Your task to perform on an android device: Empty the shopping cart on walmart.com. Search for beats solo 3 on walmart.com, select the first entry, and add it to the cart. Image 0: 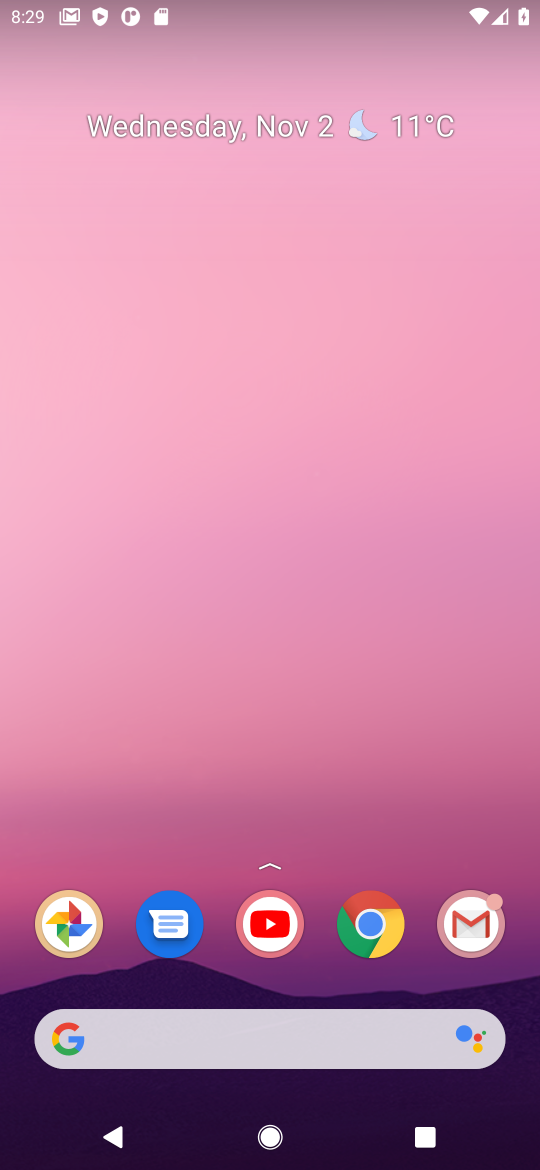
Step 0: click (393, 924)
Your task to perform on an android device: Empty the shopping cart on walmart.com. Search for beats solo 3 on walmart.com, select the first entry, and add it to the cart. Image 1: 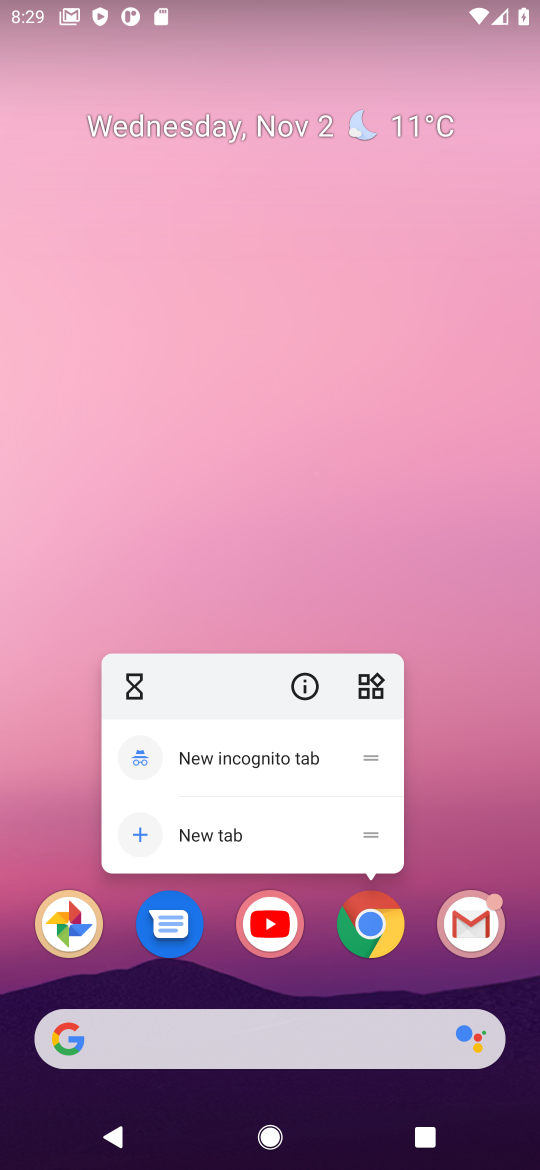
Step 1: click (394, 917)
Your task to perform on an android device: Empty the shopping cart on walmart.com. Search for beats solo 3 on walmart.com, select the first entry, and add it to the cart. Image 2: 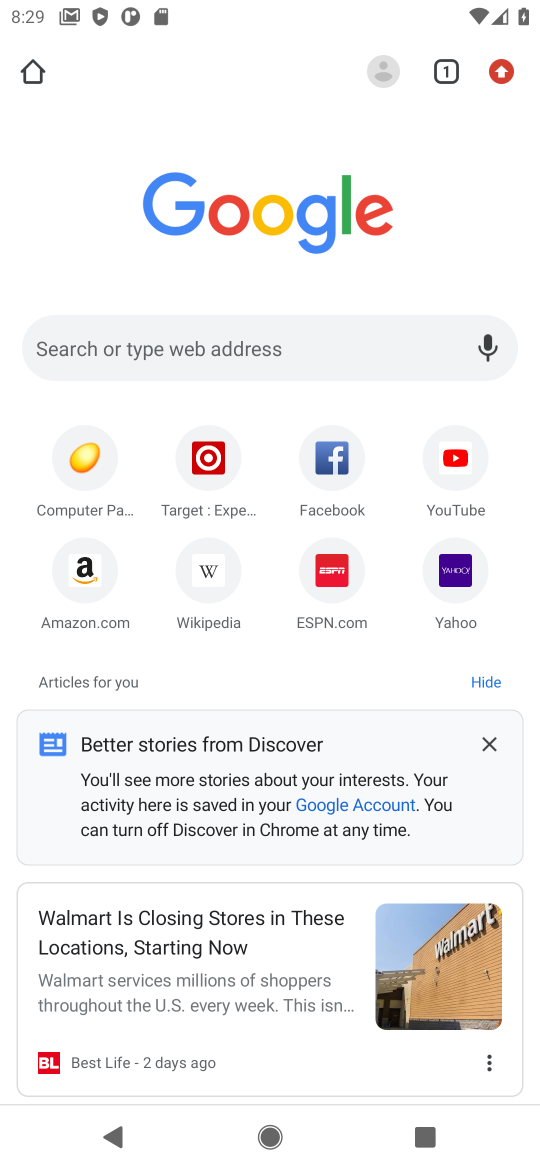
Step 2: click (89, 362)
Your task to perform on an android device: Empty the shopping cart on walmart.com. Search for beats solo 3 on walmart.com, select the first entry, and add it to the cart. Image 3: 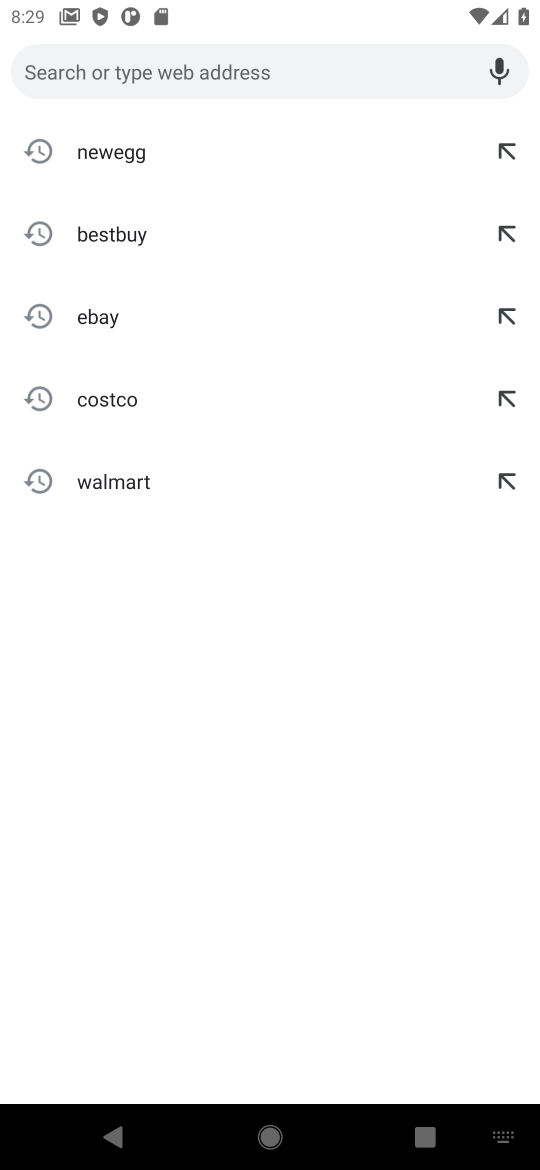
Step 3: type "walmart"
Your task to perform on an android device: Empty the shopping cart on walmart.com. Search for beats solo 3 on walmart.com, select the first entry, and add it to the cart. Image 4: 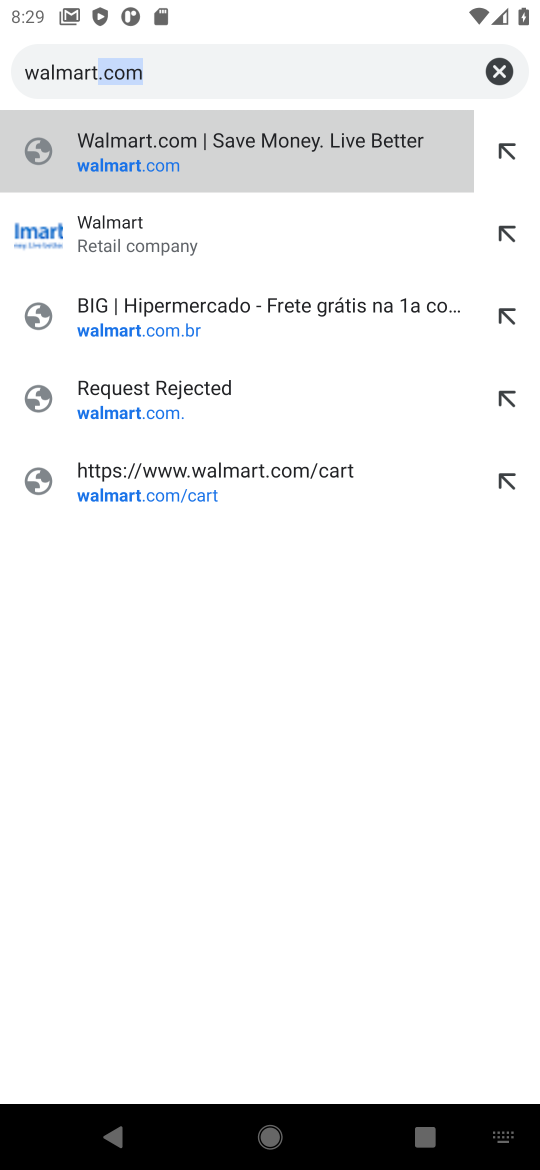
Step 4: type ""
Your task to perform on an android device: Empty the shopping cart on walmart.com. Search for beats solo 3 on walmart.com, select the first entry, and add it to the cart. Image 5: 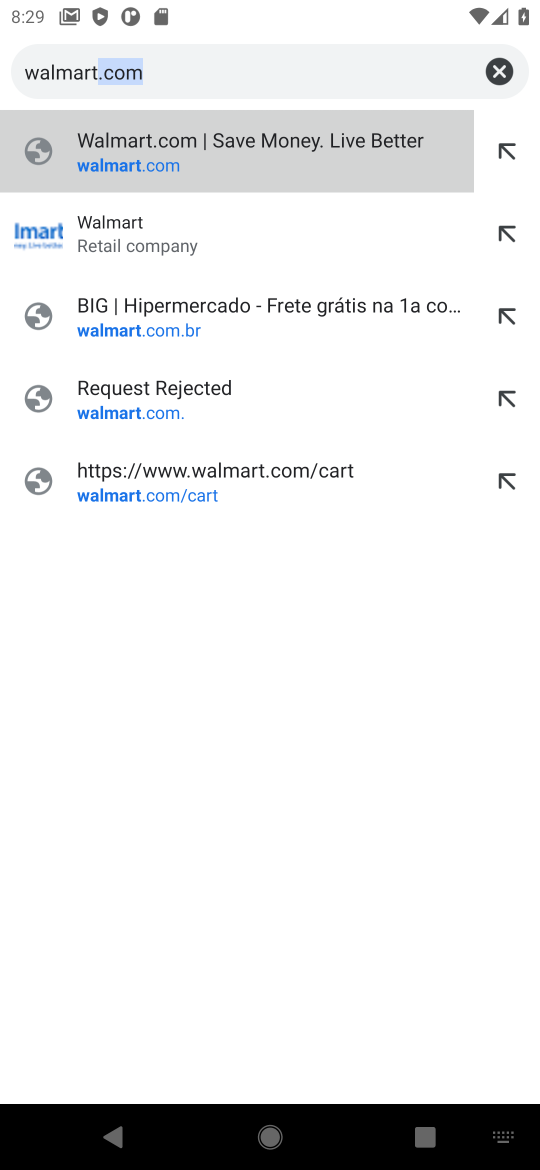
Step 5: click (108, 234)
Your task to perform on an android device: Empty the shopping cart on walmart.com. Search for beats solo 3 on walmart.com, select the first entry, and add it to the cart. Image 6: 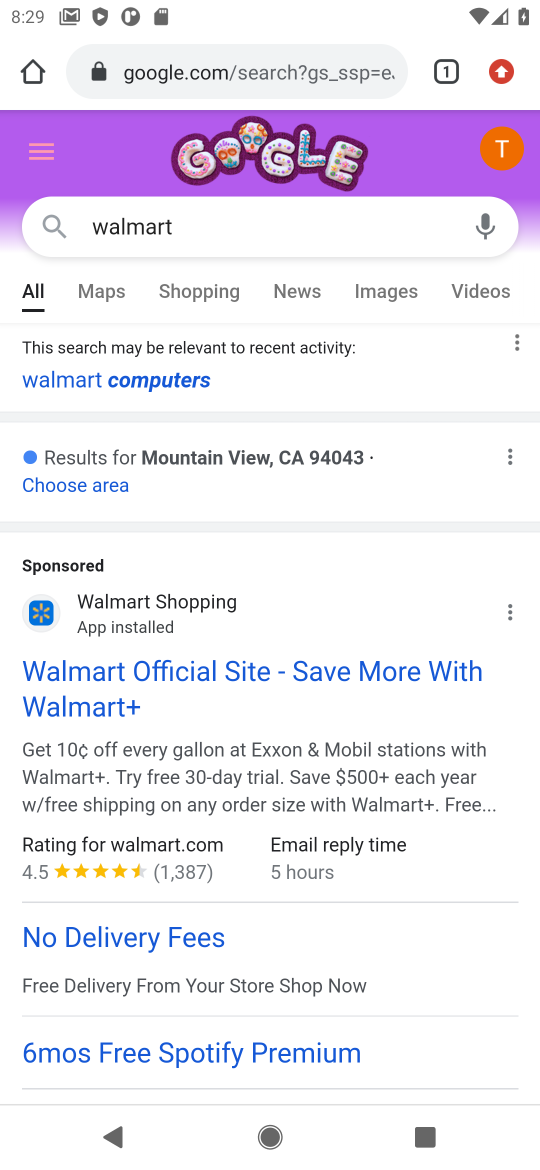
Step 6: drag from (119, 919) to (181, 565)
Your task to perform on an android device: Empty the shopping cart on walmart.com. Search for beats solo 3 on walmart.com, select the first entry, and add it to the cart. Image 7: 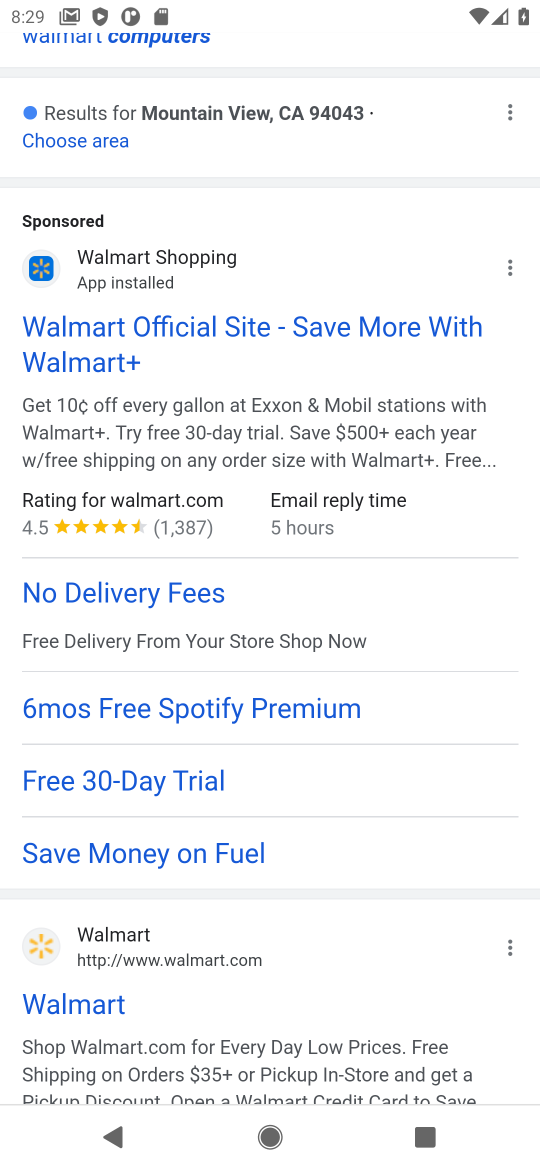
Step 7: click (167, 328)
Your task to perform on an android device: Empty the shopping cart on walmart.com. Search for beats solo 3 on walmart.com, select the first entry, and add it to the cart. Image 8: 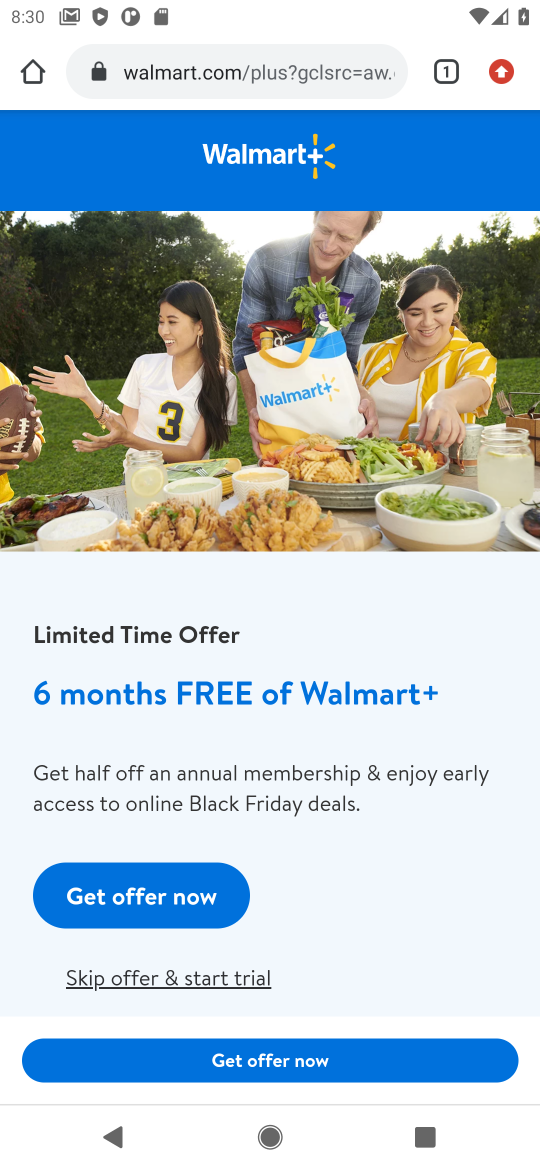
Step 8: drag from (379, 907) to (182, 904)
Your task to perform on an android device: Empty the shopping cart on walmart.com. Search for beats solo 3 on walmart.com, select the first entry, and add it to the cart. Image 9: 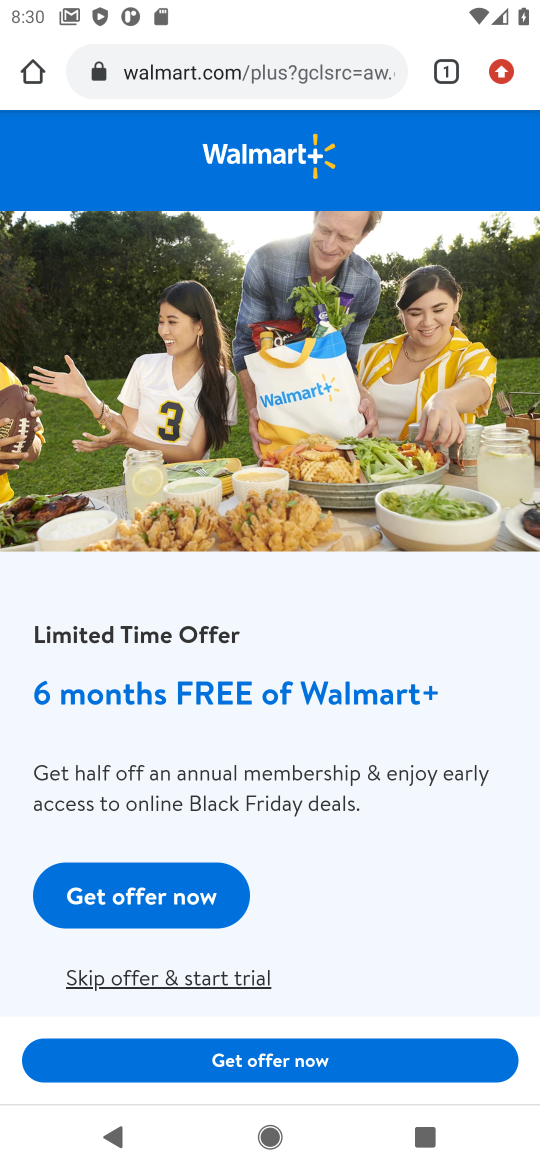
Step 9: press back button
Your task to perform on an android device: Empty the shopping cart on walmart.com. Search for beats solo 3 on walmart.com, select the first entry, and add it to the cart. Image 10: 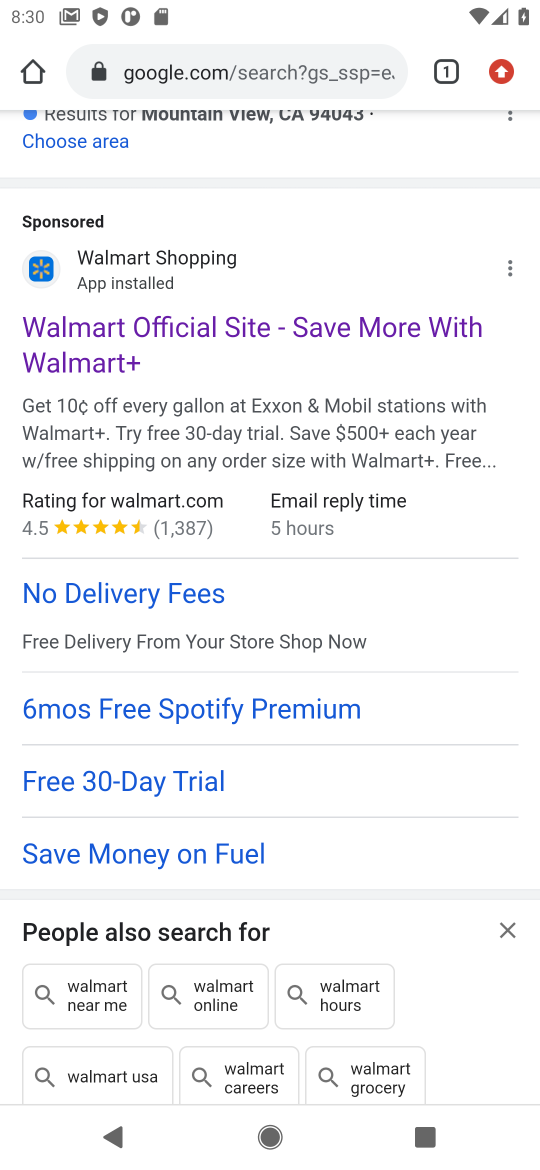
Step 10: click (82, 321)
Your task to perform on an android device: Empty the shopping cart on walmart.com. Search for beats solo 3 on walmart.com, select the first entry, and add it to the cart. Image 11: 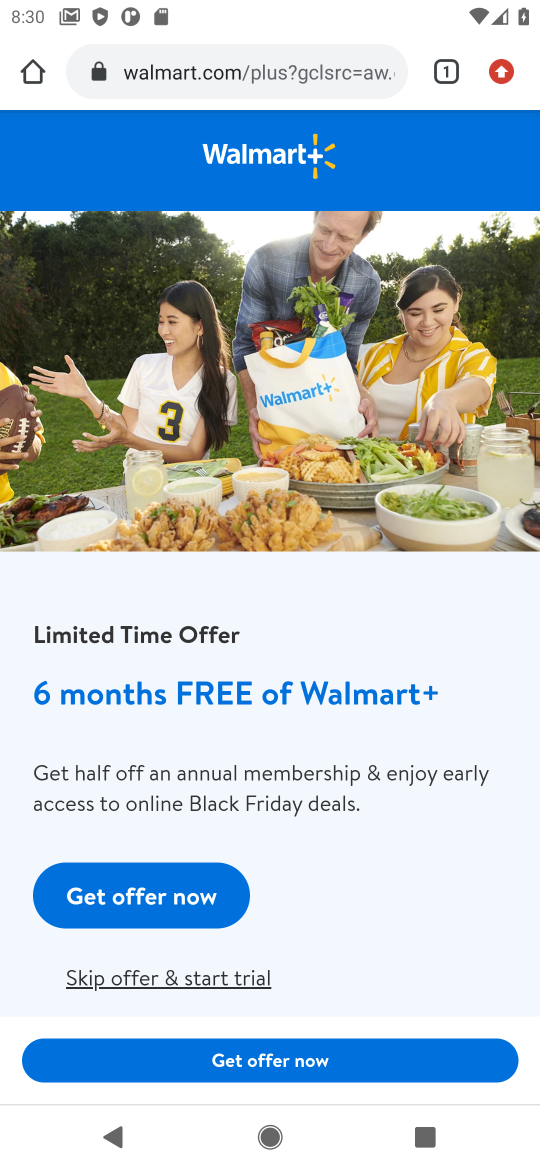
Step 11: drag from (332, 970) to (318, 830)
Your task to perform on an android device: Empty the shopping cart on walmart.com. Search for beats solo 3 on walmart.com, select the first entry, and add it to the cart. Image 12: 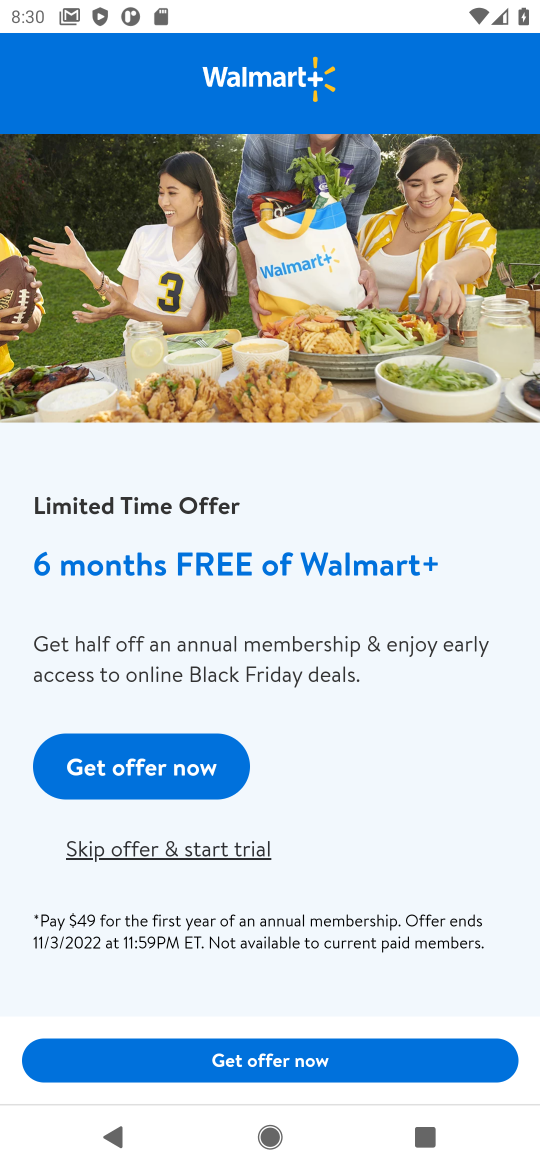
Step 12: click (135, 844)
Your task to perform on an android device: Empty the shopping cart on walmart.com. Search for beats solo 3 on walmart.com, select the first entry, and add it to the cart. Image 13: 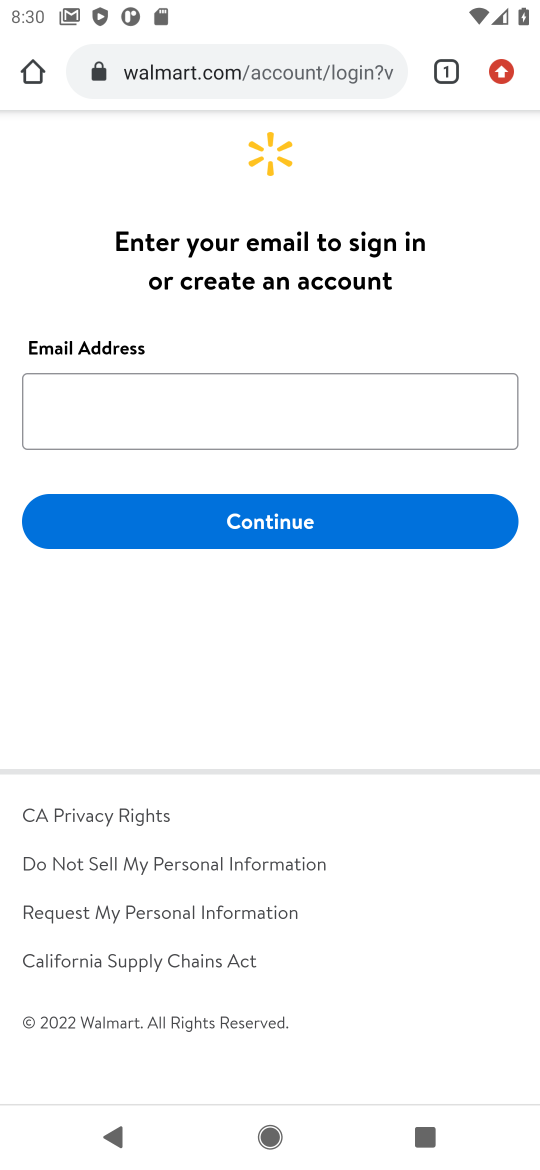
Step 13: press back button
Your task to perform on an android device: Empty the shopping cart on walmart.com. Search for beats solo 3 on walmart.com, select the first entry, and add it to the cart. Image 14: 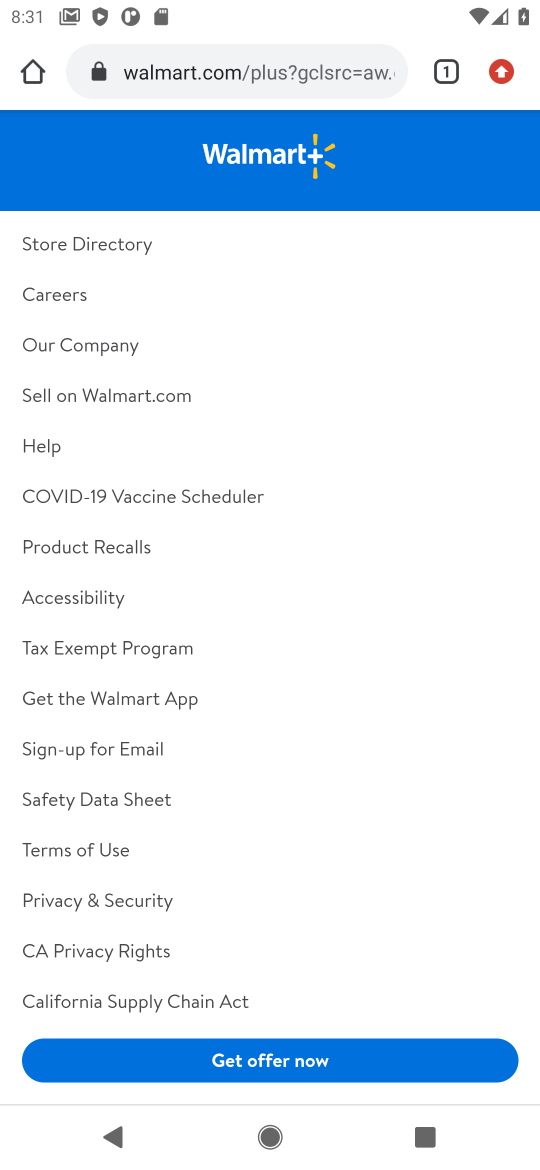
Step 14: press back button
Your task to perform on an android device: Empty the shopping cart on walmart.com. Search for beats solo 3 on walmart.com, select the first entry, and add it to the cart. Image 15: 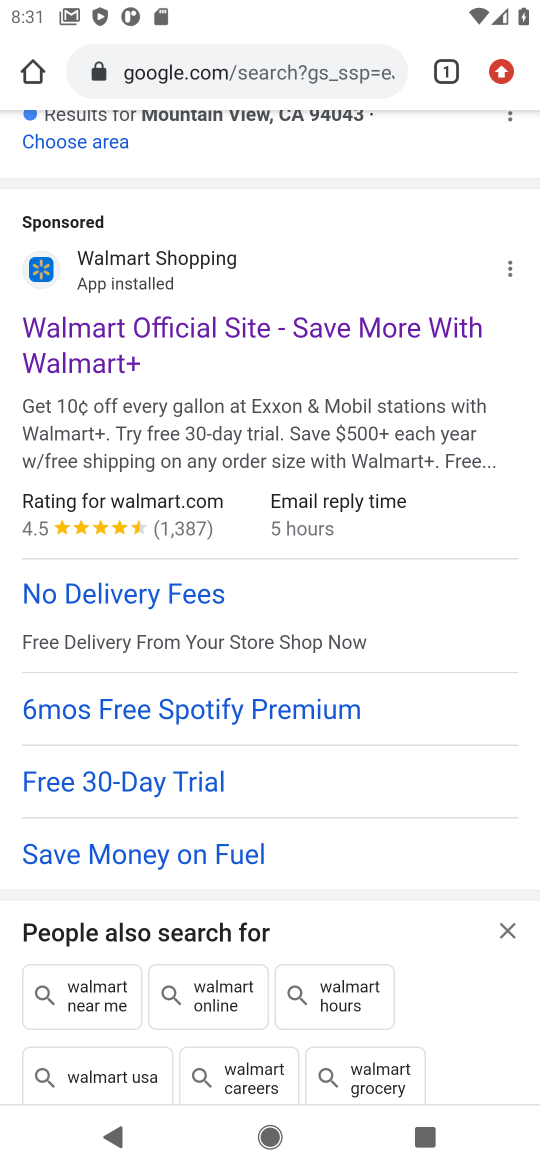
Step 15: drag from (213, 847) to (214, 219)
Your task to perform on an android device: Empty the shopping cart on walmart.com. Search for beats solo 3 on walmart.com, select the first entry, and add it to the cart. Image 16: 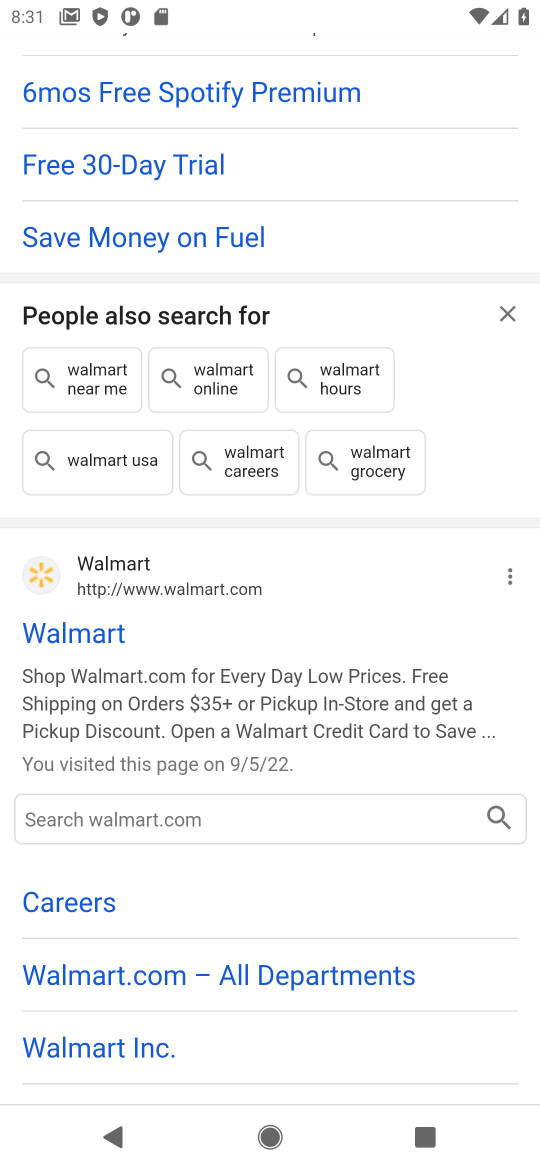
Step 16: click (59, 645)
Your task to perform on an android device: Empty the shopping cart on walmart.com. Search for beats solo 3 on walmart.com, select the first entry, and add it to the cart. Image 17: 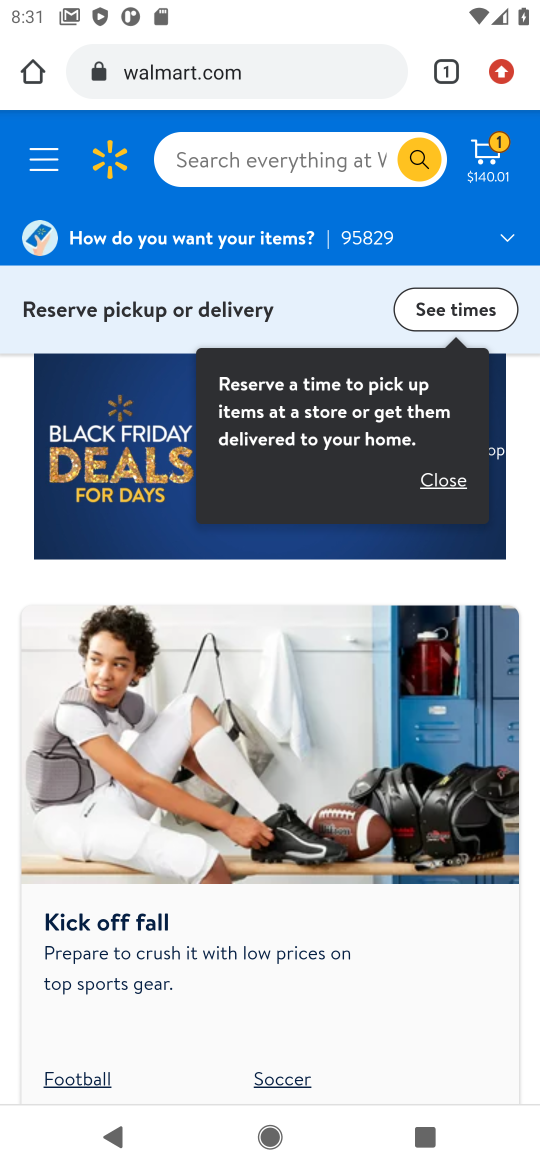
Step 17: click (280, 160)
Your task to perform on an android device: Empty the shopping cart on walmart.com. Search for beats solo 3 on walmart.com, select the first entry, and add it to the cart. Image 18: 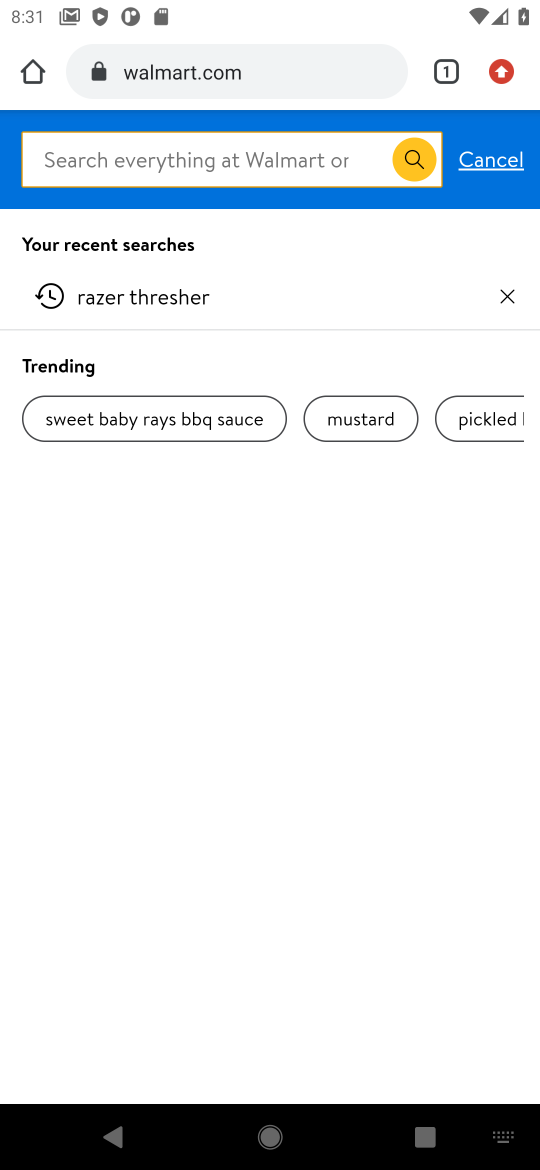
Step 18: type "beat solo 3"
Your task to perform on an android device: Empty the shopping cart on walmart.com. Search for beats solo 3 on walmart.com, select the first entry, and add it to the cart. Image 19: 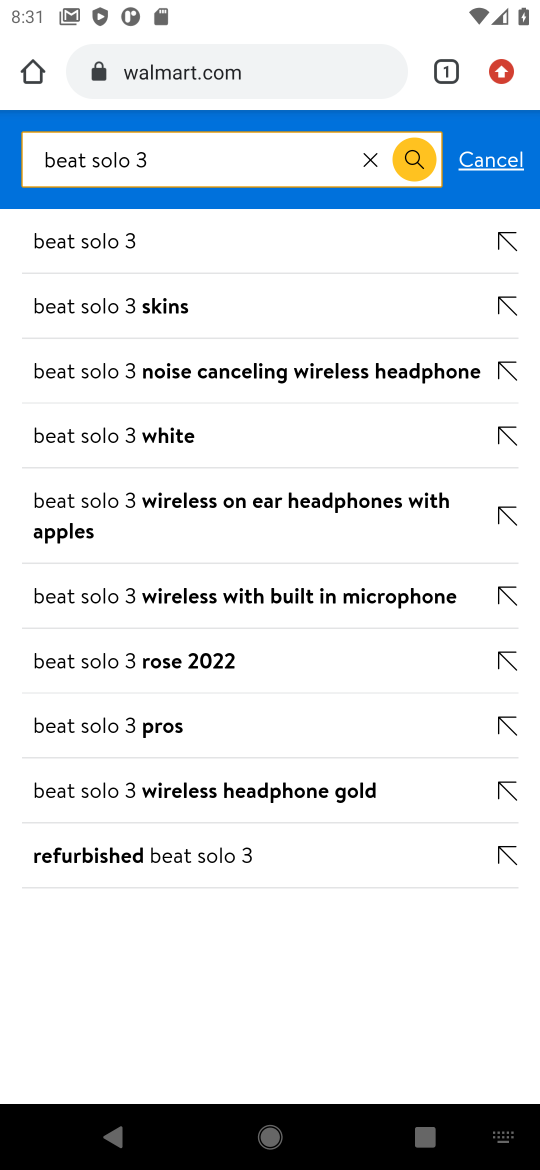
Step 19: click (128, 236)
Your task to perform on an android device: Empty the shopping cart on walmart.com. Search for beats solo 3 on walmart.com, select the first entry, and add it to the cart. Image 20: 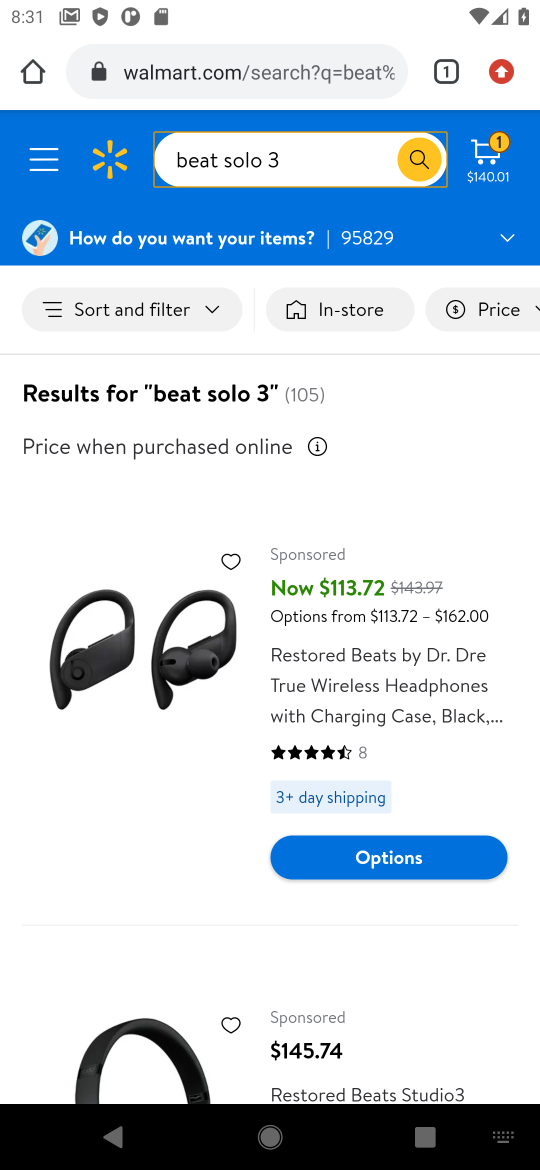
Step 20: drag from (182, 848) to (251, 274)
Your task to perform on an android device: Empty the shopping cart on walmart.com. Search for beats solo 3 on walmart.com, select the first entry, and add it to the cart. Image 21: 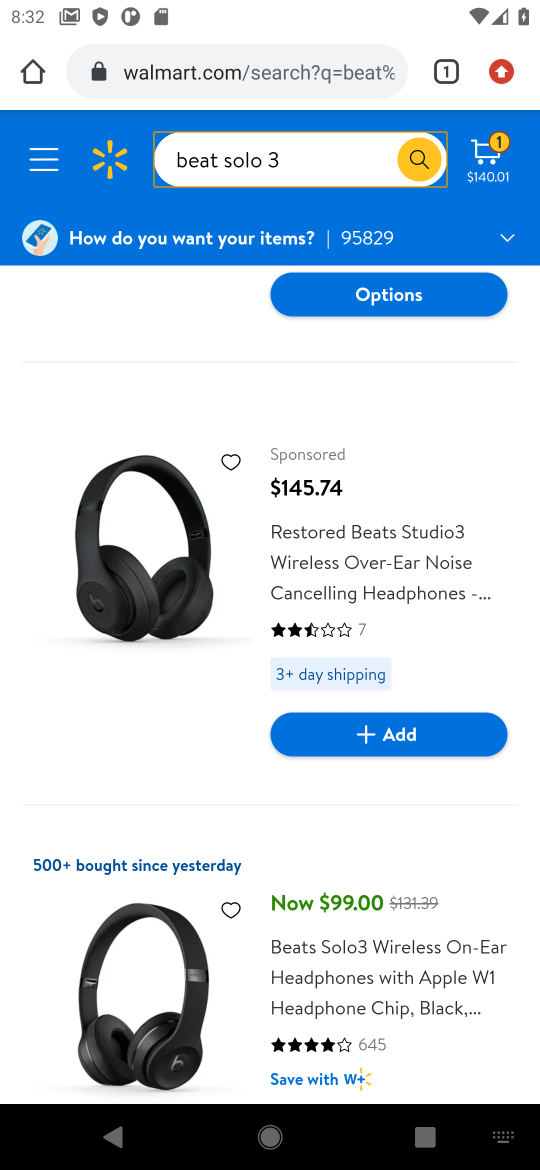
Step 21: click (320, 994)
Your task to perform on an android device: Empty the shopping cart on walmart.com. Search for beats solo 3 on walmart.com, select the first entry, and add it to the cart. Image 22: 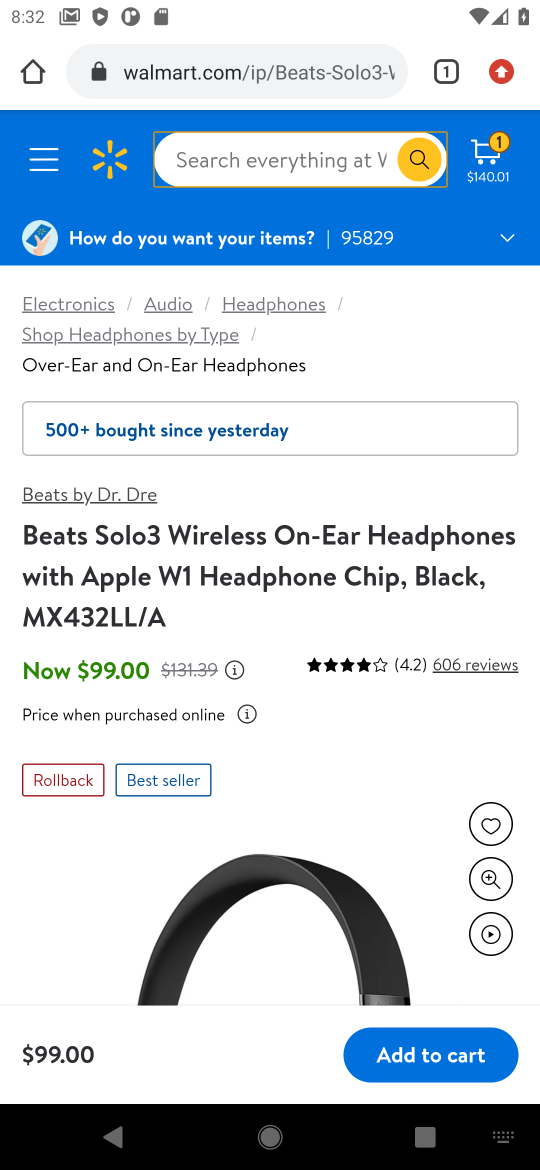
Step 22: click (415, 1069)
Your task to perform on an android device: Empty the shopping cart on walmart.com. Search for beats solo 3 on walmart.com, select the first entry, and add it to the cart. Image 23: 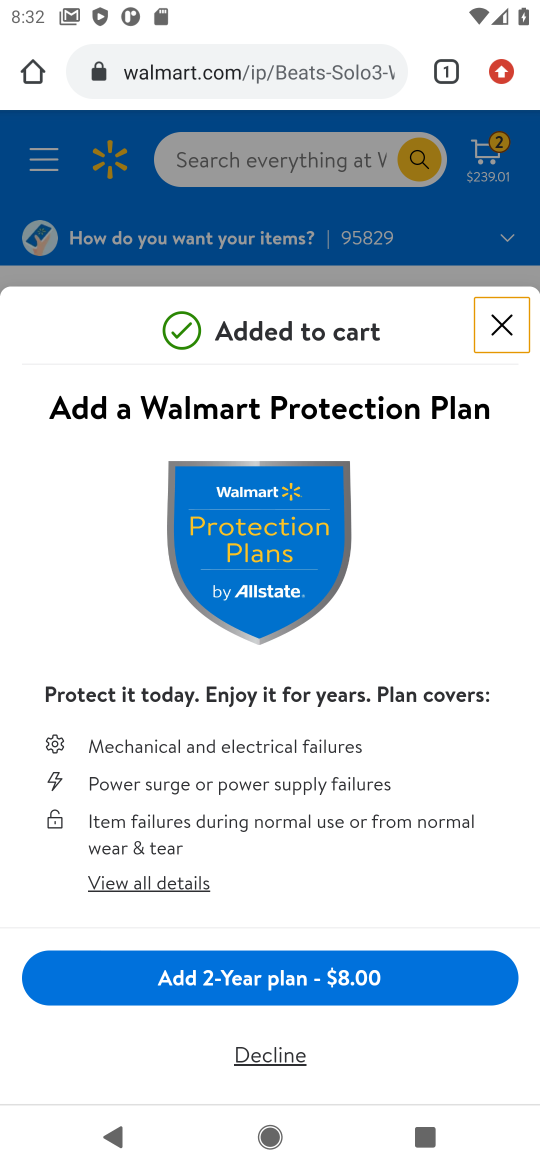
Step 23: click (500, 324)
Your task to perform on an android device: Empty the shopping cart on walmart.com. Search for beats solo 3 on walmart.com, select the first entry, and add it to the cart. Image 24: 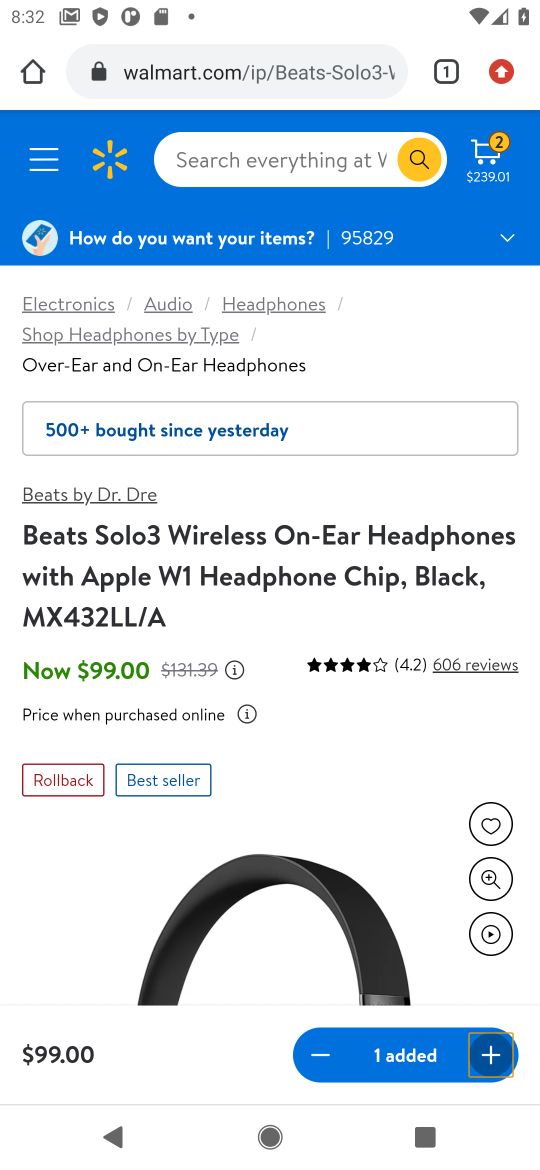
Step 24: drag from (94, 857) to (245, 247)
Your task to perform on an android device: Empty the shopping cart on walmart.com. Search for beats solo 3 on walmart.com, select the first entry, and add it to the cart. Image 25: 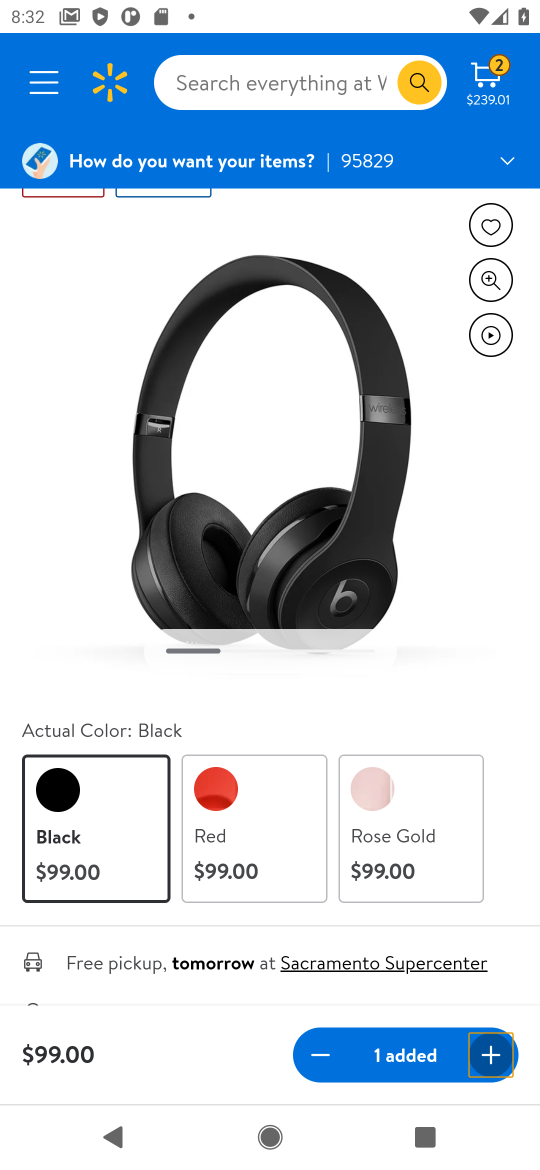
Step 25: drag from (321, 367) to (426, 996)
Your task to perform on an android device: Empty the shopping cart on walmart.com. Search for beats solo 3 on walmart.com, select the first entry, and add it to the cart. Image 26: 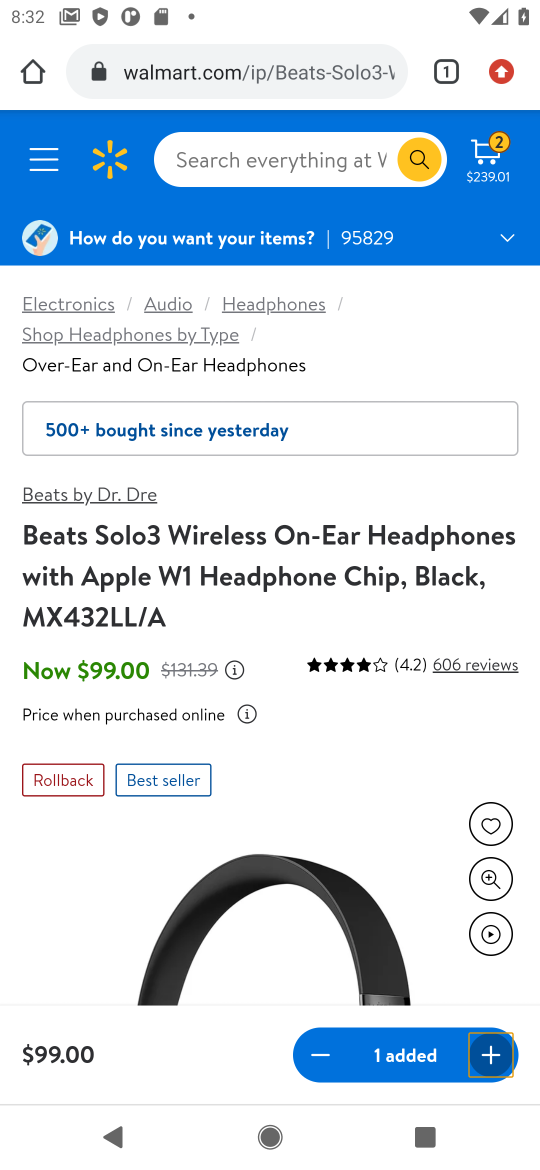
Step 26: click (488, 143)
Your task to perform on an android device: Empty the shopping cart on walmart.com. Search for beats solo 3 on walmart.com, select the first entry, and add it to the cart. Image 27: 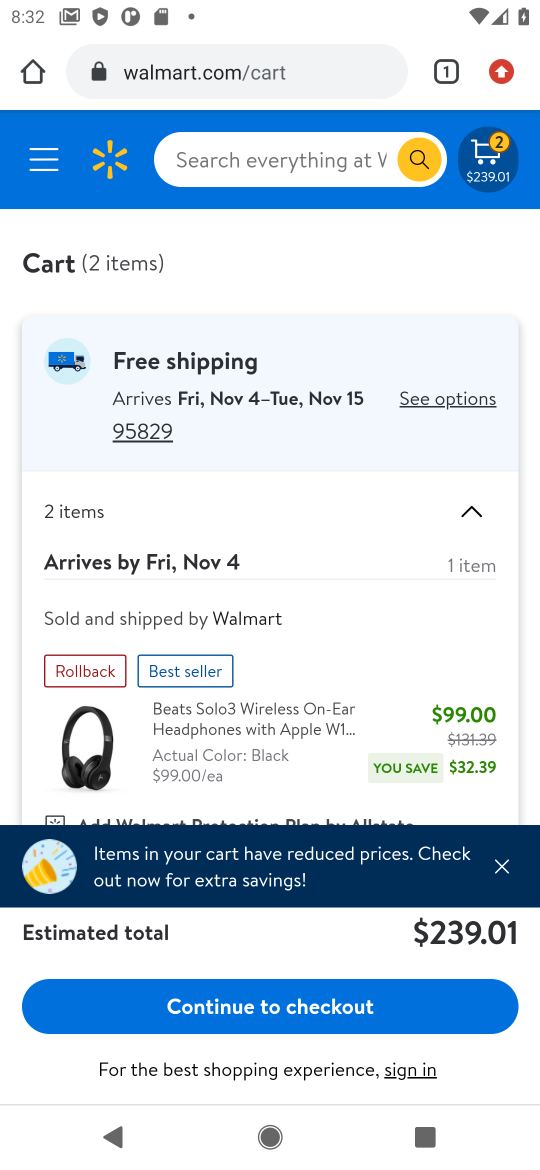
Step 27: click (501, 872)
Your task to perform on an android device: Empty the shopping cart on walmart.com. Search for beats solo 3 on walmart.com, select the first entry, and add it to the cart. Image 28: 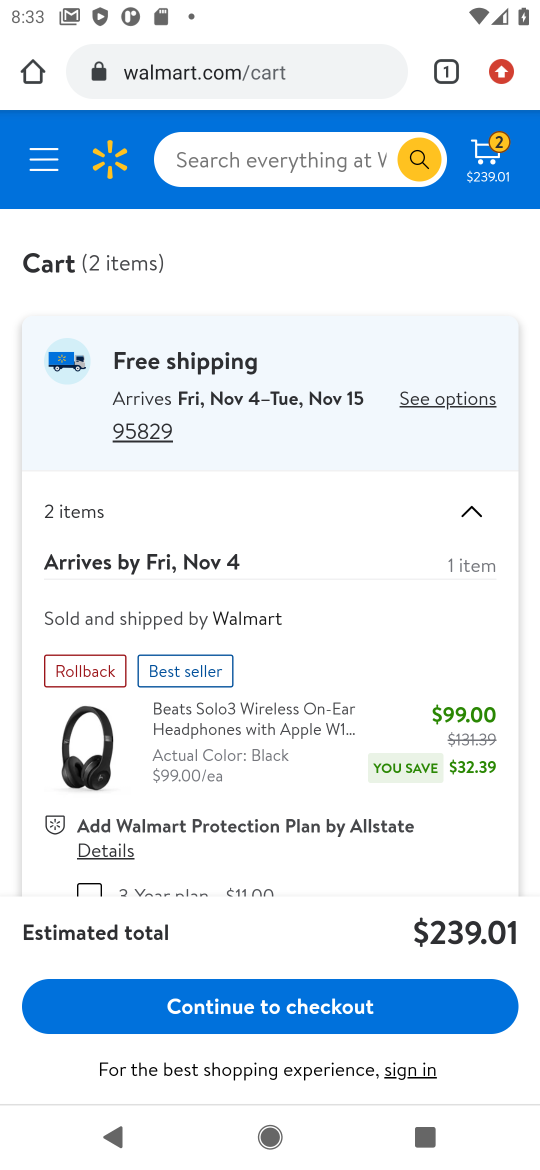
Step 28: task complete